Your task to perform on an android device: What's the weather going to be this weekend? Image 0: 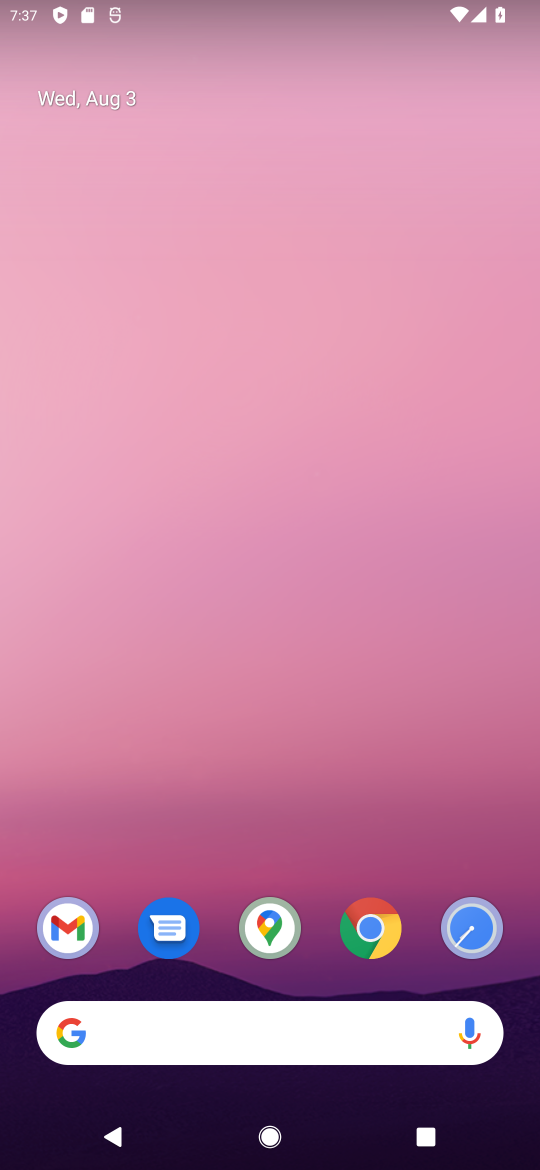
Step 0: click (389, 937)
Your task to perform on an android device: What's the weather going to be this weekend? Image 1: 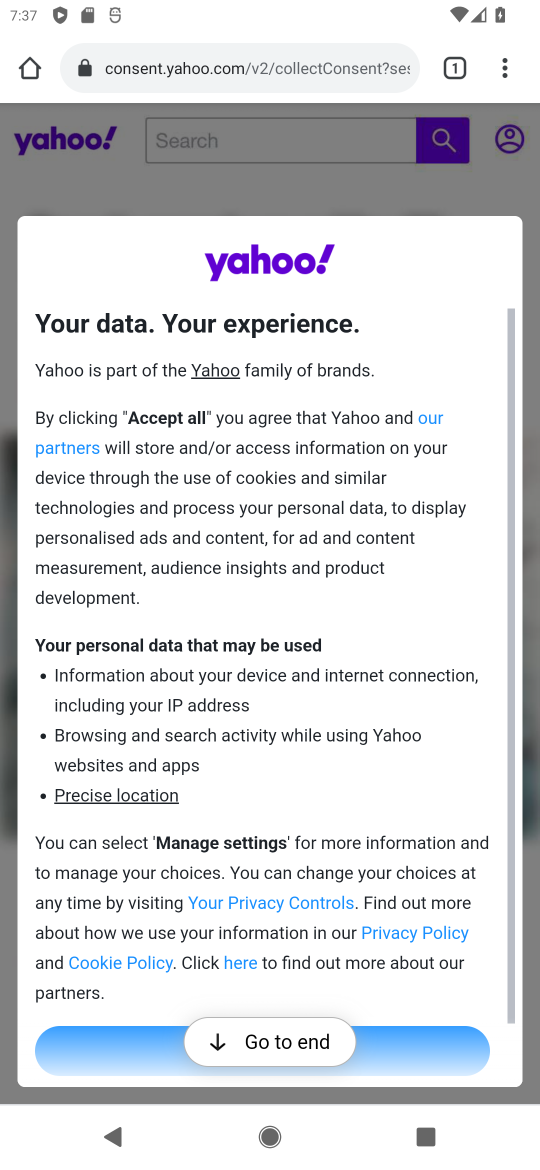
Step 1: click (353, 55)
Your task to perform on an android device: What's the weather going to be this weekend? Image 2: 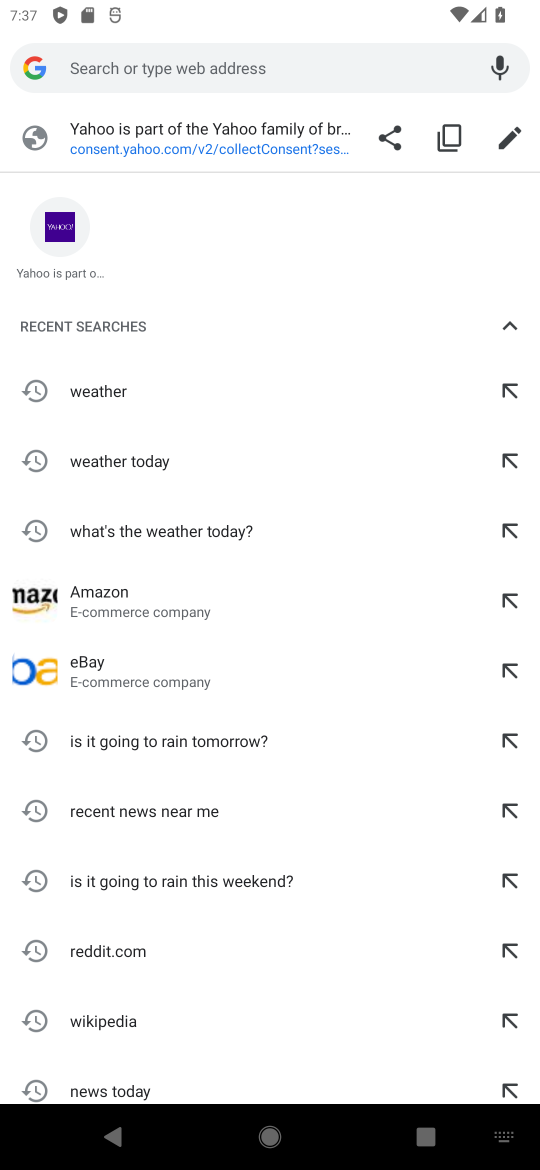
Step 2: type "What's the weather going to be this weekend?"
Your task to perform on an android device: What's the weather going to be this weekend? Image 3: 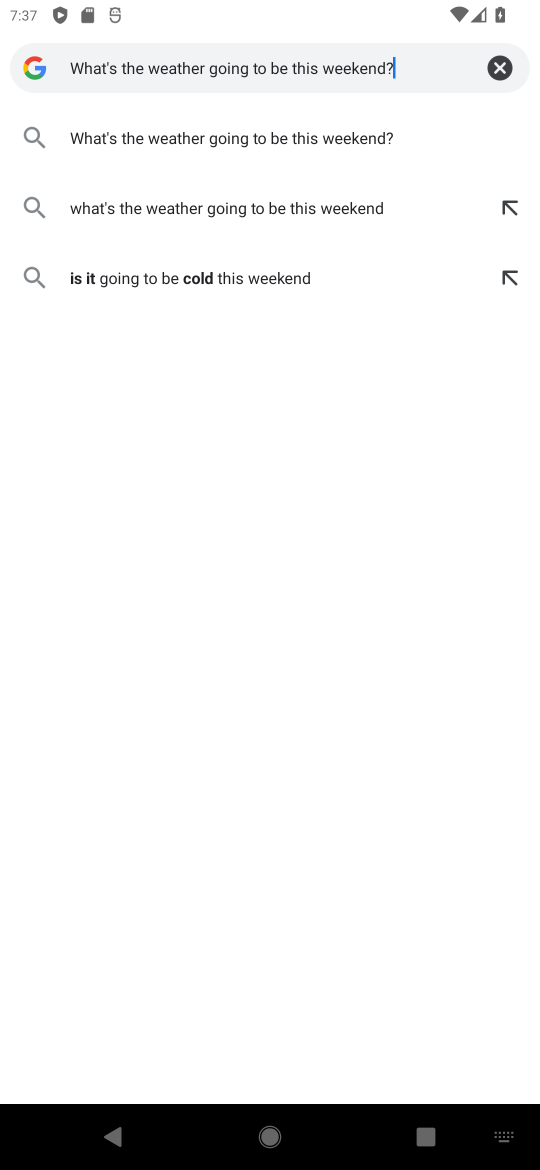
Step 3: click (340, 145)
Your task to perform on an android device: What's the weather going to be this weekend? Image 4: 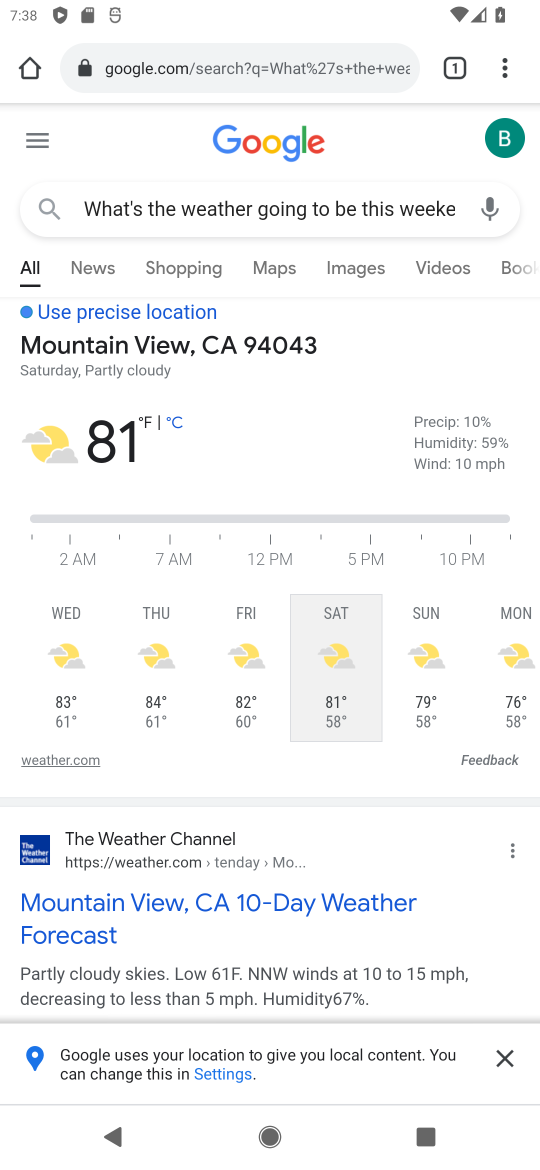
Step 4: task complete